Your task to perform on an android device: see creations saved in the google photos Image 0: 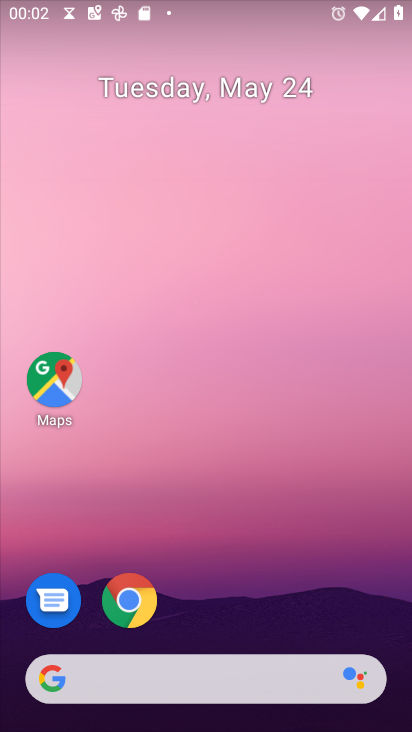
Step 0: drag from (188, 723) to (156, 68)
Your task to perform on an android device: see creations saved in the google photos Image 1: 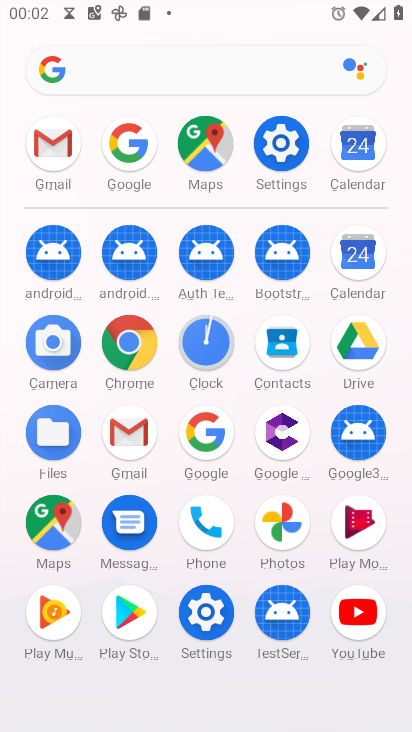
Step 1: click (277, 511)
Your task to perform on an android device: see creations saved in the google photos Image 2: 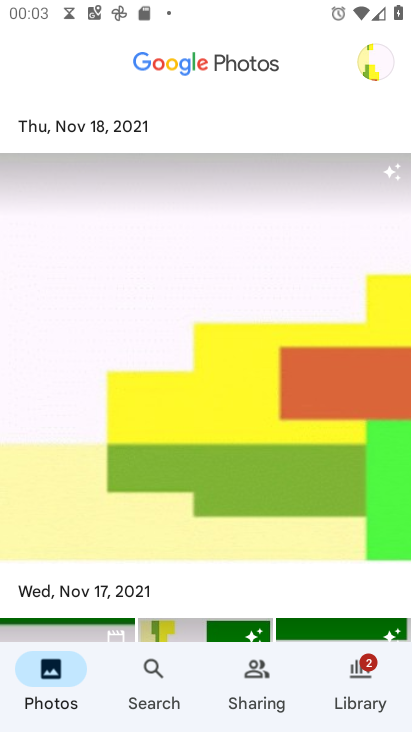
Step 2: click (154, 667)
Your task to perform on an android device: see creations saved in the google photos Image 3: 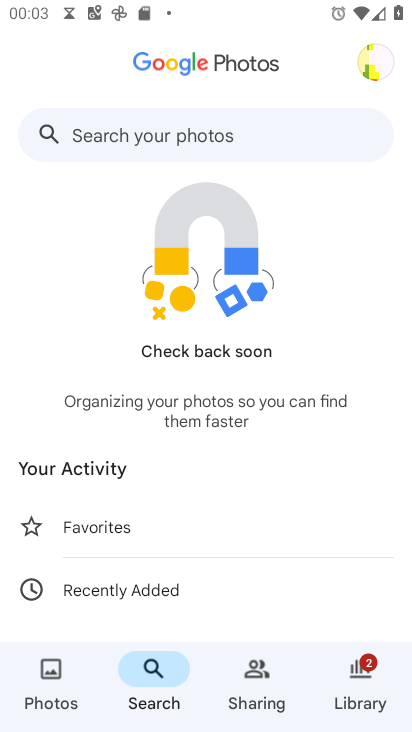
Step 3: drag from (198, 591) to (202, 237)
Your task to perform on an android device: see creations saved in the google photos Image 4: 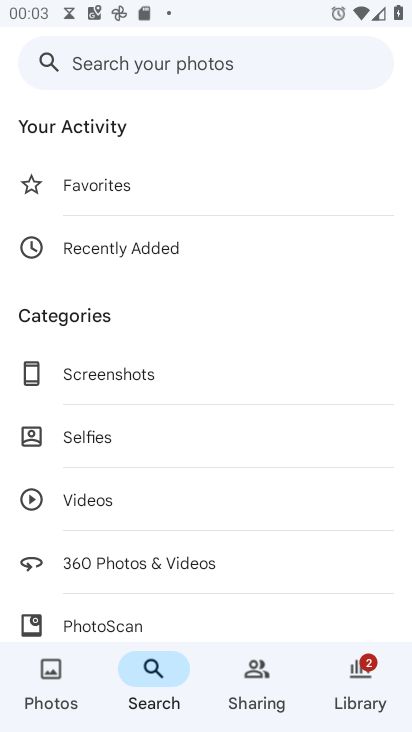
Step 4: drag from (204, 606) to (206, 259)
Your task to perform on an android device: see creations saved in the google photos Image 5: 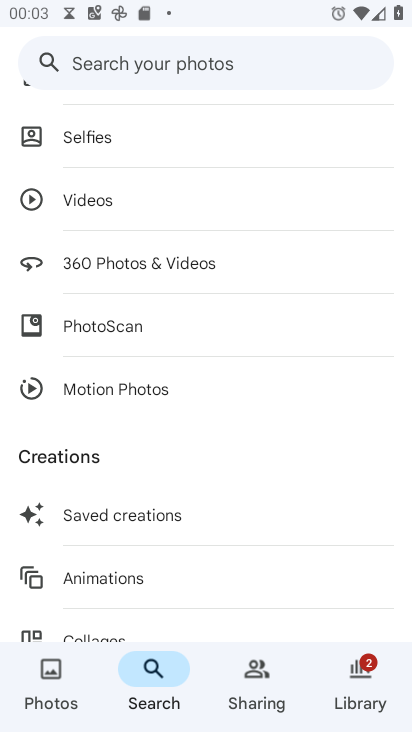
Step 5: drag from (178, 575) to (180, 414)
Your task to perform on an android device: see creations saved in the google photos Image 6: 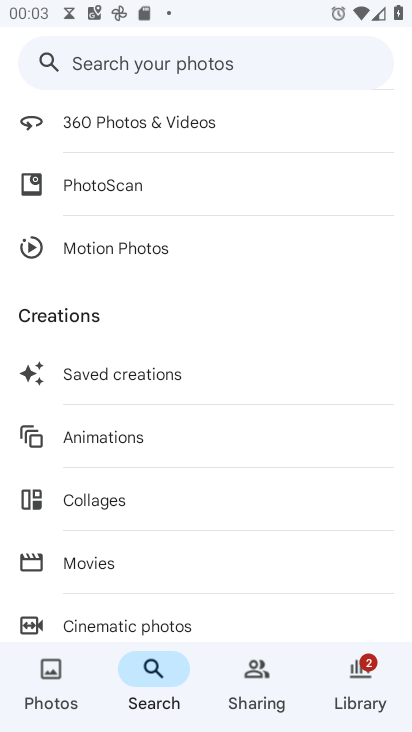
Step 6: click (116, 371)
Your task to perform on an android device: see creations saved in the google photos Image 7: 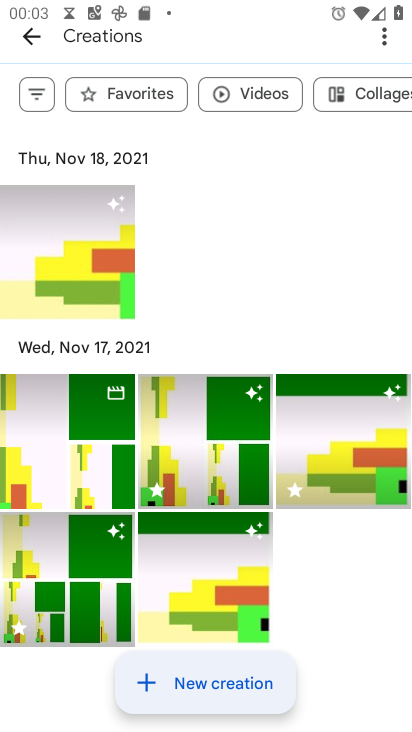
Step 7: task complete